Your task to perform on an android device: toggle notification dots Image 0: 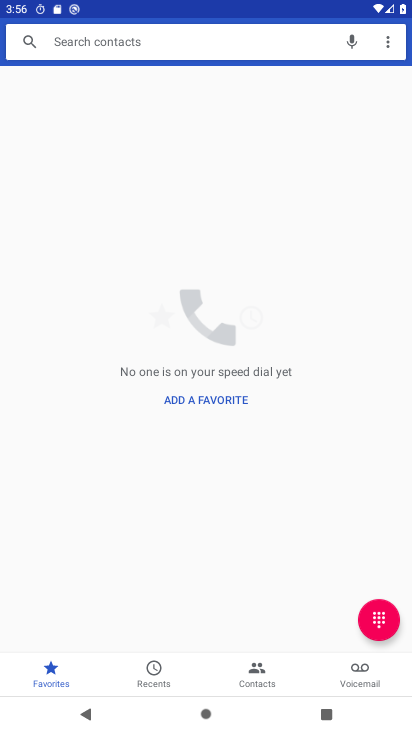
Step 0: click (271, 241)
Your task to perform on an android device: toggle notification dots Image 1: 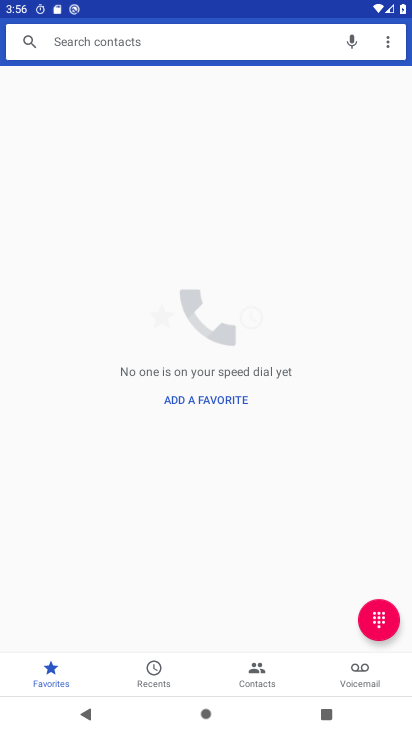
Step 1: press home button
Your task to perform on an android device: toggle notification dots Image 2: 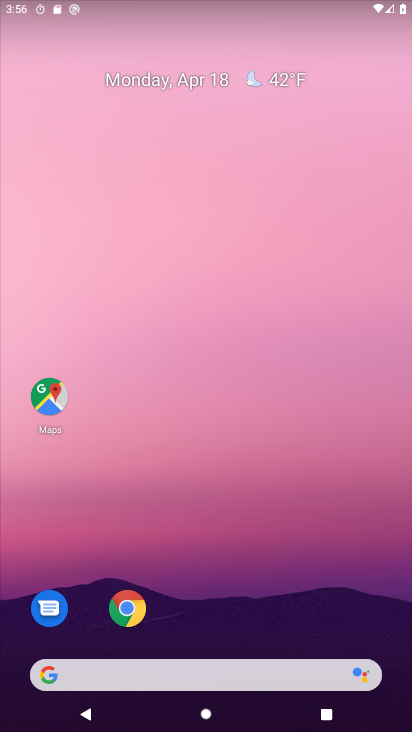
Step 2: drag from (330, 256) to (324, 103)
Your task to perform on an android device: toggle notification dots Image 3: 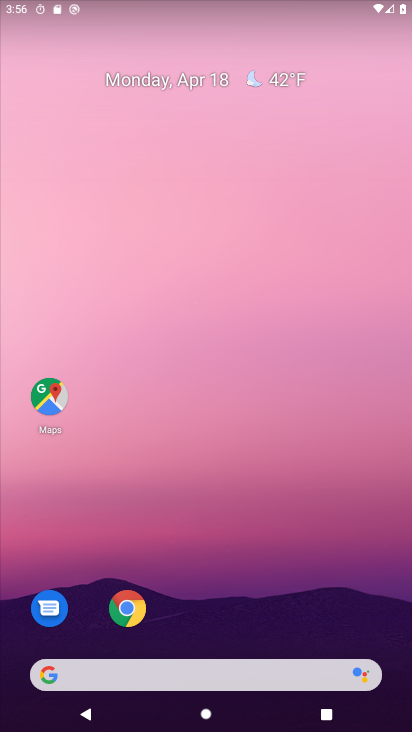
Step 3: drag from (367, 389) to (343, 84)
Your task to perform on an android device: toggle notification dots Image 4: 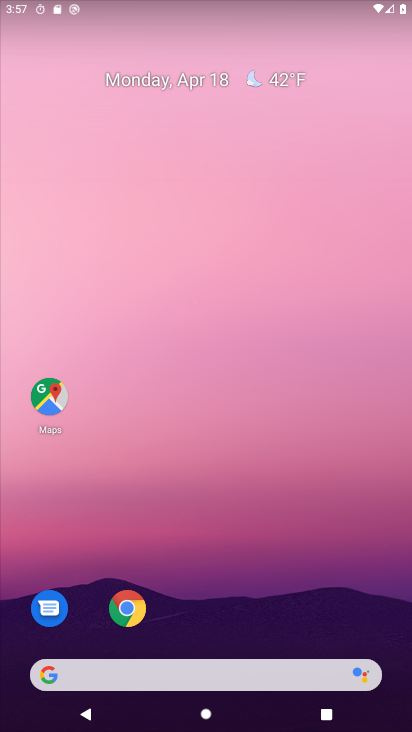
Step 4: drag from (379, 632) to (331, 19)
Your task to perform on an android device: toggle notification dots Image 5: 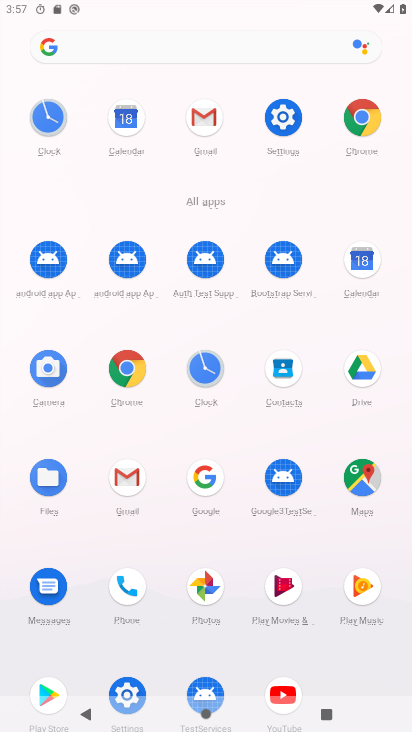
Step 5: click (275, 118)
Your task to perform on an android device: toggle notification dots Image 6: 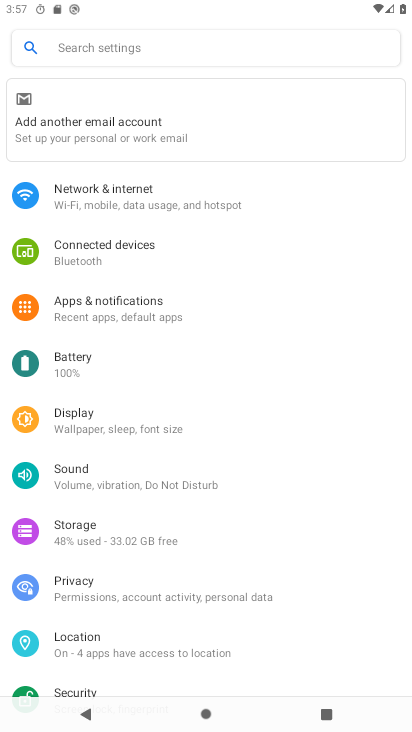
Step 6: click (92, 300)
Your task to perform on an android device: toggle notification dots Image 7: 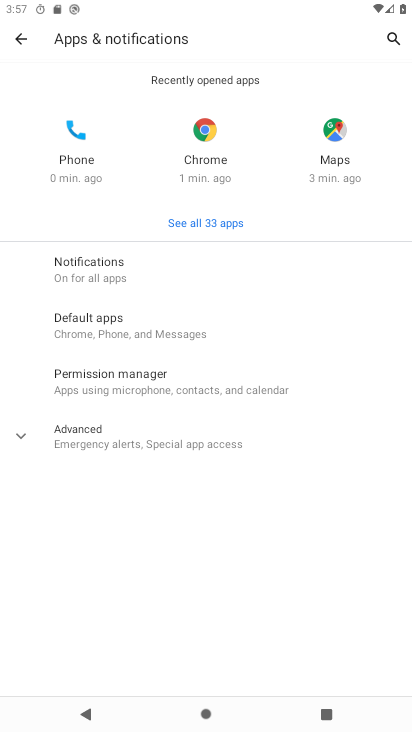
Step 7: click (52, 260)
Your task to perform on an android device: toggle notification dots Image 8: 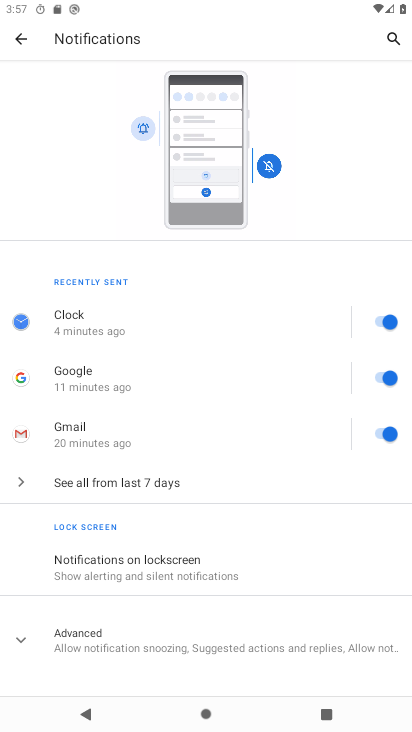
Step 8: click (62, 636)
Your task to perform on an android device: toggle notification dots Image 9: 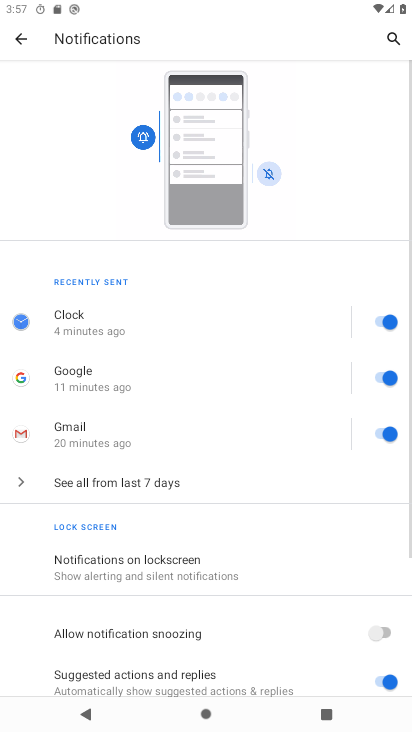
Step 9: drag from (249, 365) to (248, 267)
Your task to perform on an android device: toggle notification dots Image 10: 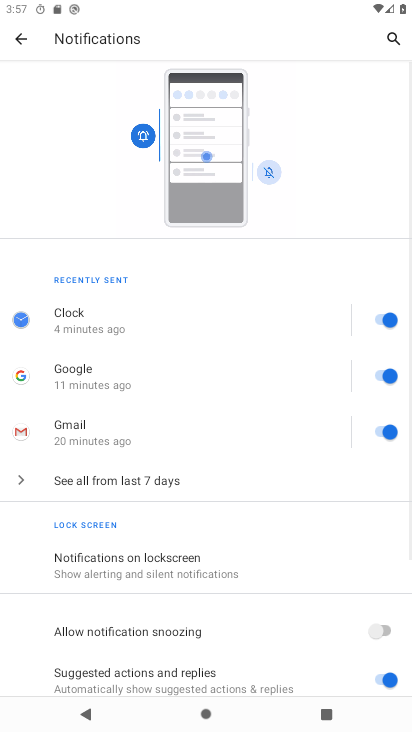
Step 10: drag from (277, 503) to (251, 344)
Your task to perform on an android device: toggle notification dots Image 11: 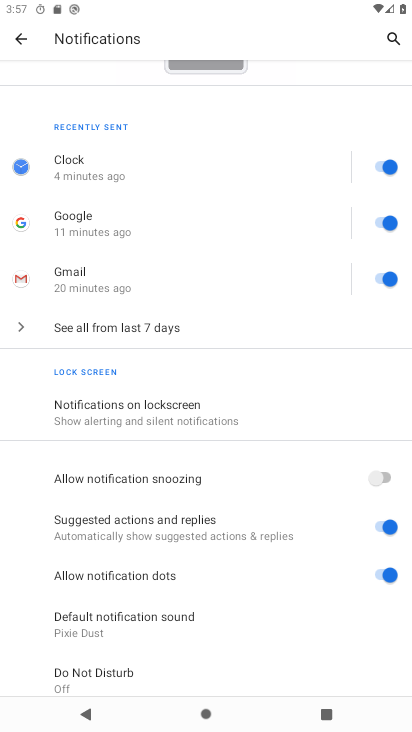
Step 11: click (383, 572)
Your task to perform on an android device: toggle notification dots Image 12: 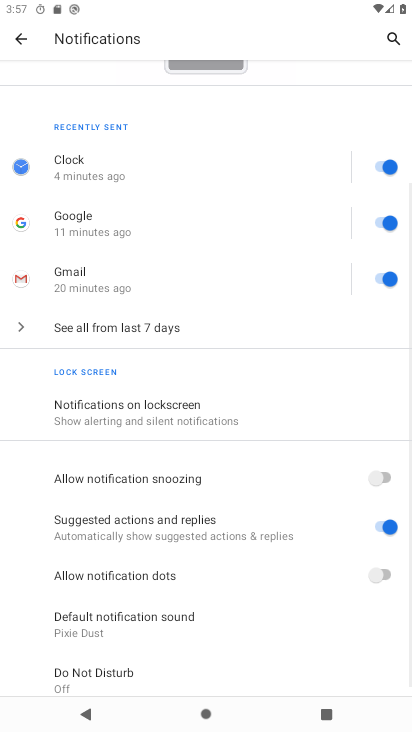
Step 12: task complete